Your task to perform on an android device: Open the calendar app, open the side menu, and click the "Day" option Image 0: 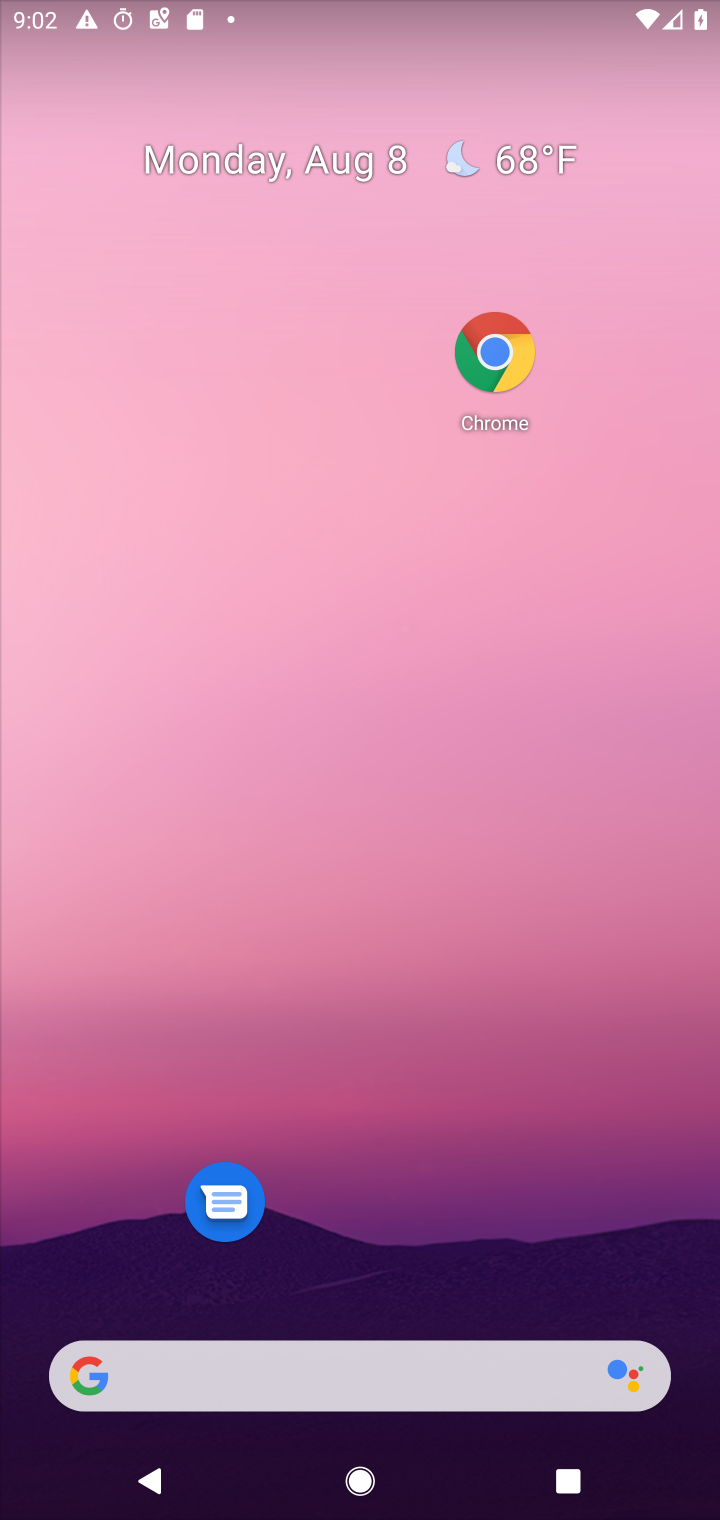
Step 0: drag from (482, 928) to (501, 519)
Your task to perform on an android device: Open the calendar app, open the side menu, and click the "Day" option Image 1: 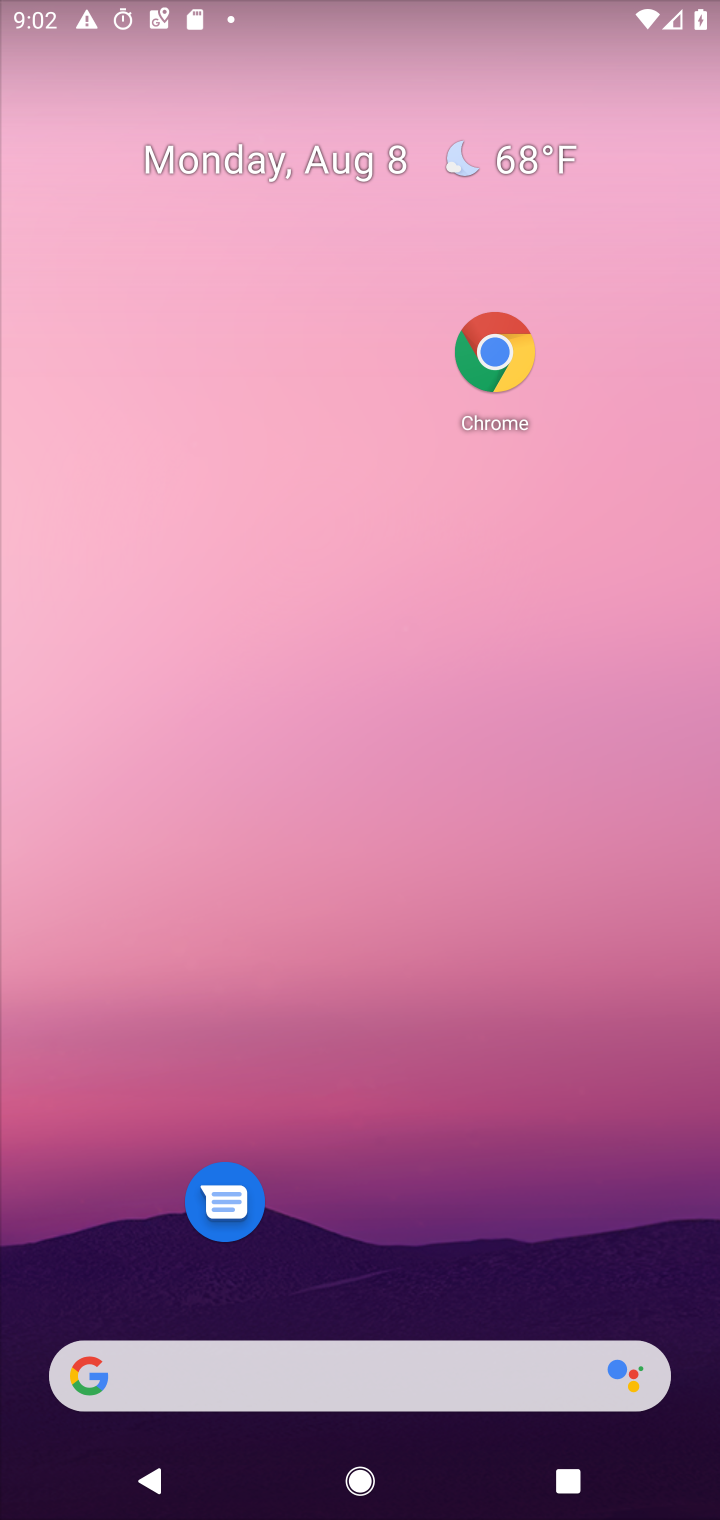
Step 1: drag from (464, 848) to (558, 238)
Your task to perform on an android device: Open the calendar app, open the side menu, and click the "Day" option Image 2: 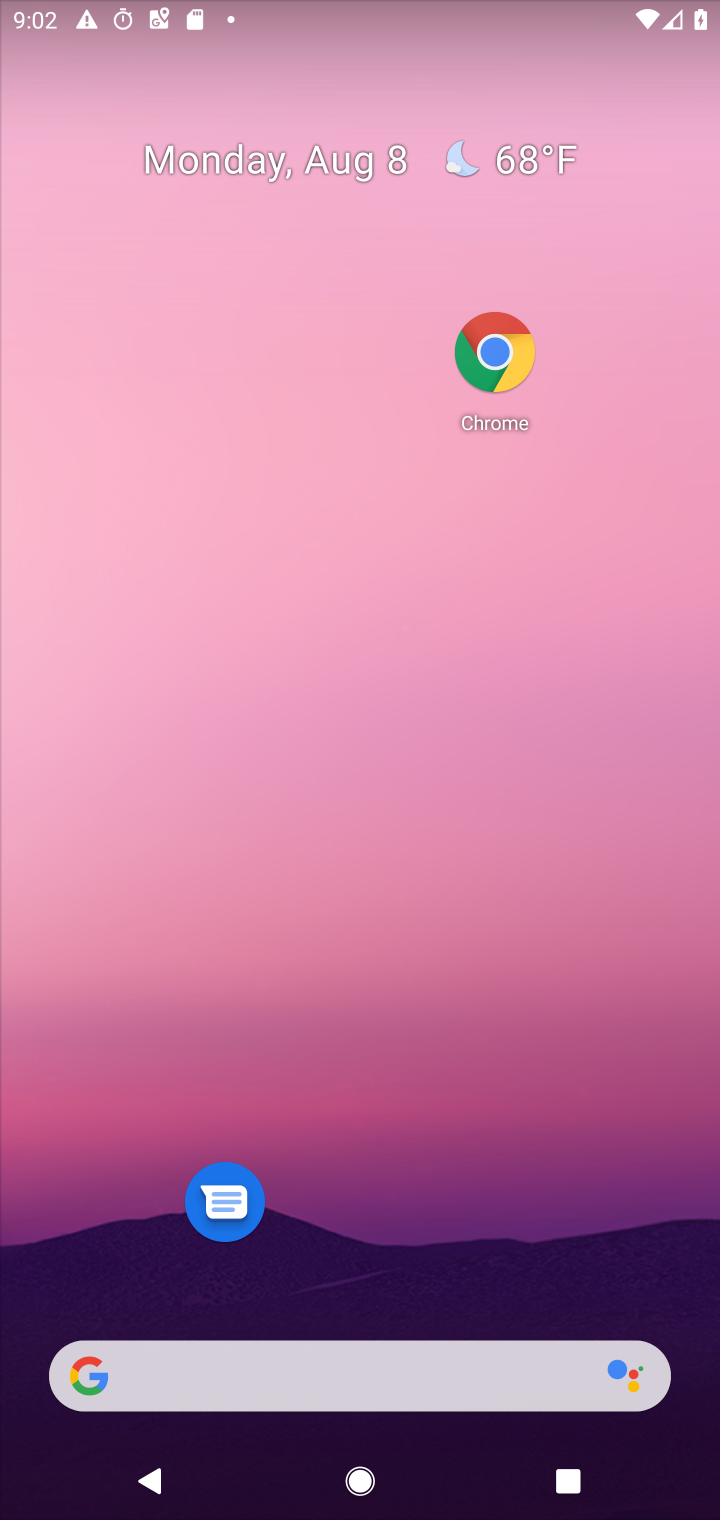
Step 2: drag from (356, 1188) to (439, 20)
Your task to perform on an android device: Open the calendar app, open the side menu, and click the "Day" option Image 3: 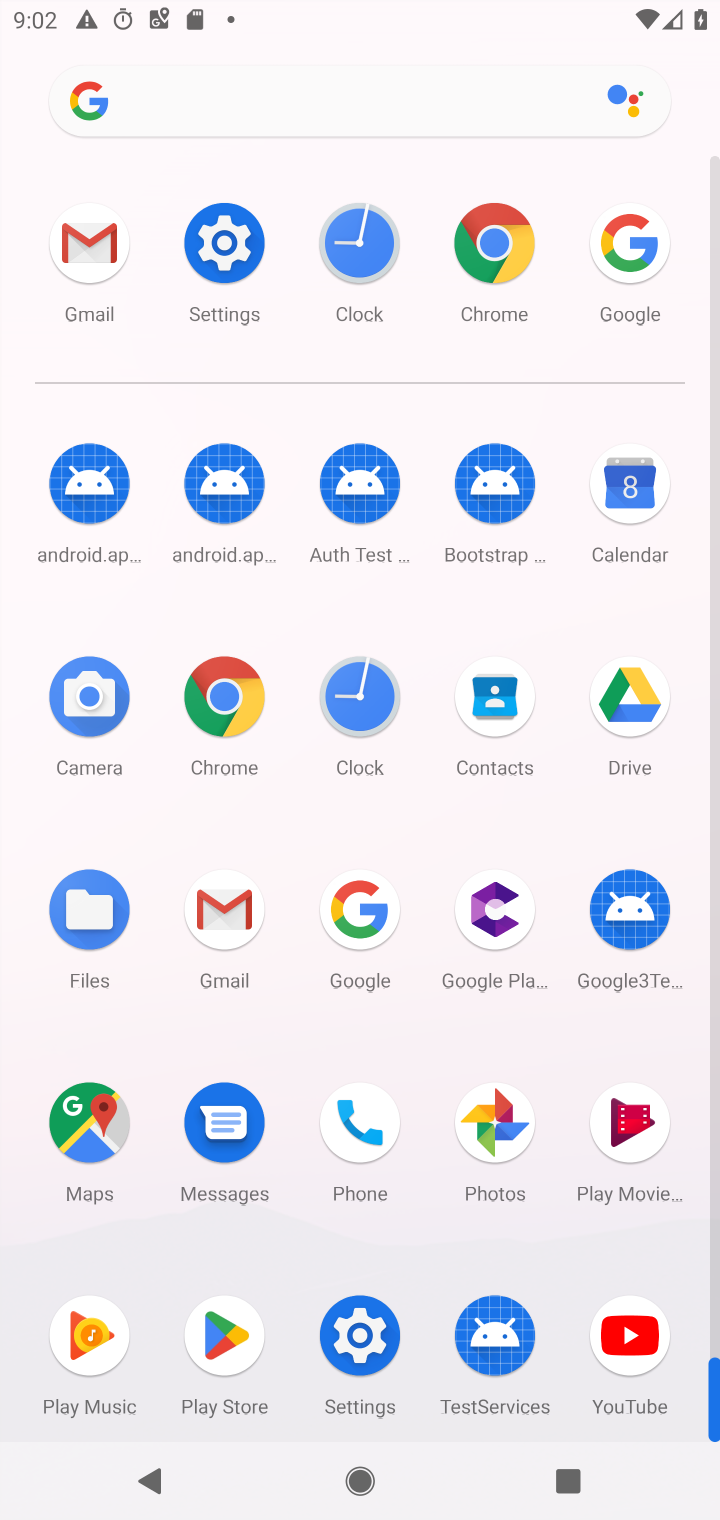
Step 3: click (599, 502)
Your task to perform on an android device: Open the calendar app, open the side menu, and click the "Day" option Image 4: 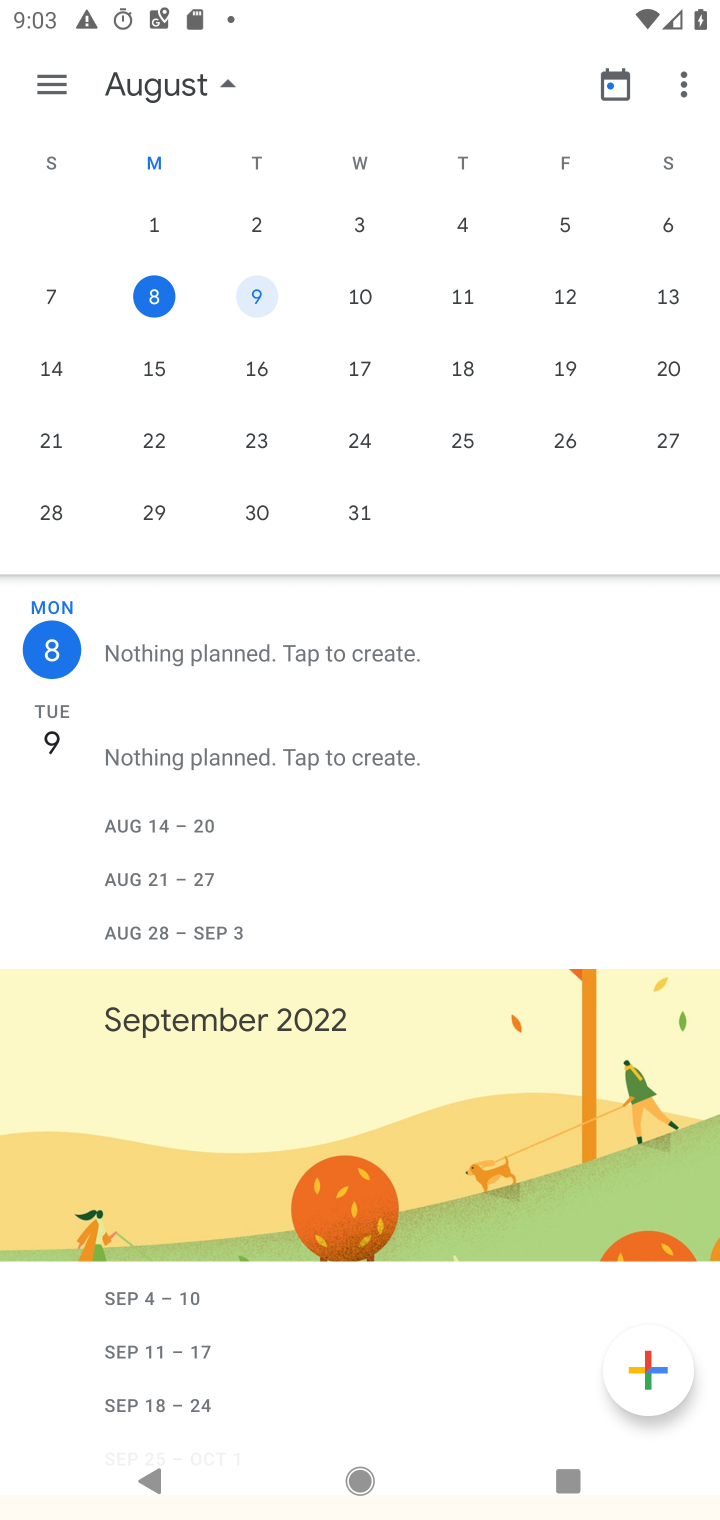
Step 4: click (52, 73)
Your task to perform on an android device: Open the calendar app, open the side menu, and click the "Day" option Image 5: 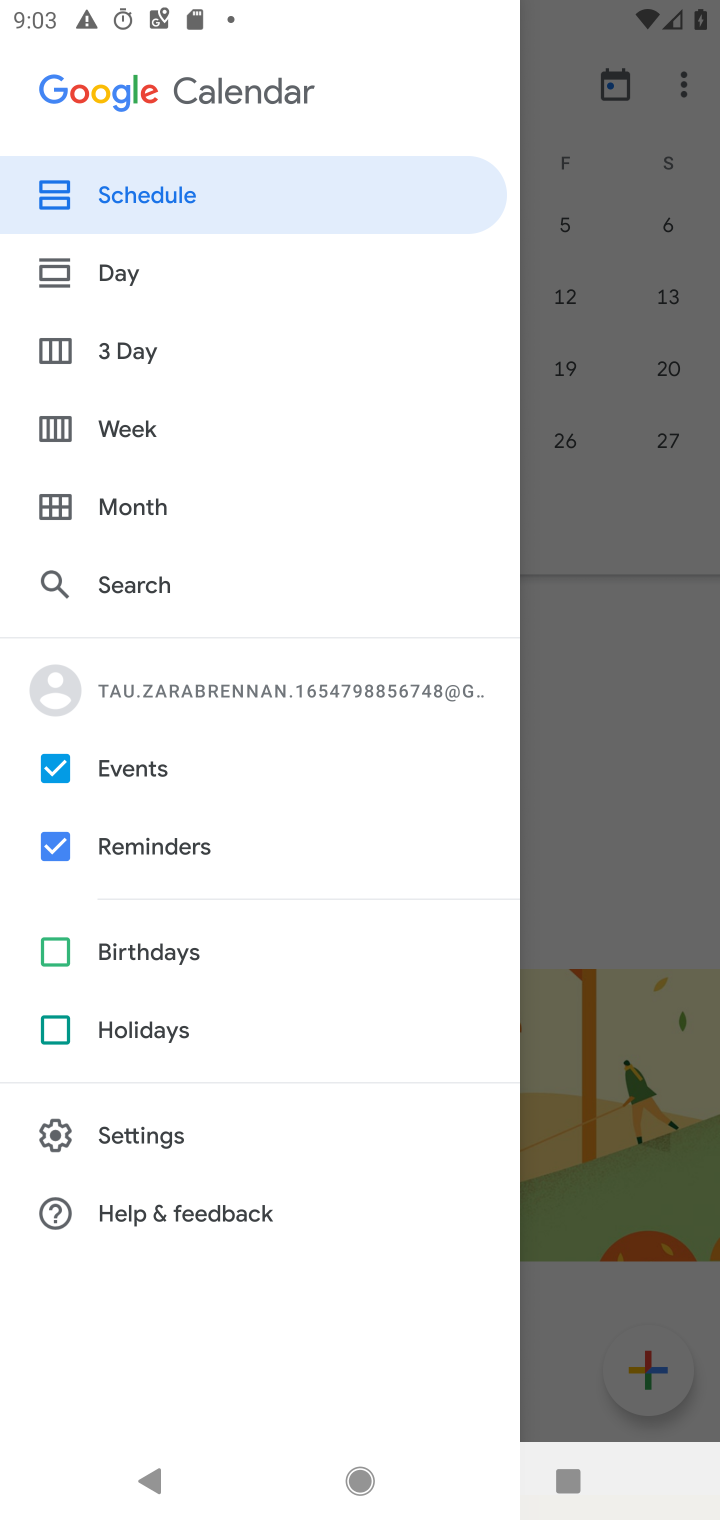
Step 5: click (128, 279)
Your task to perform on an android device: Open the calendar app, open the side menu, and click the "Day" option Image 6: 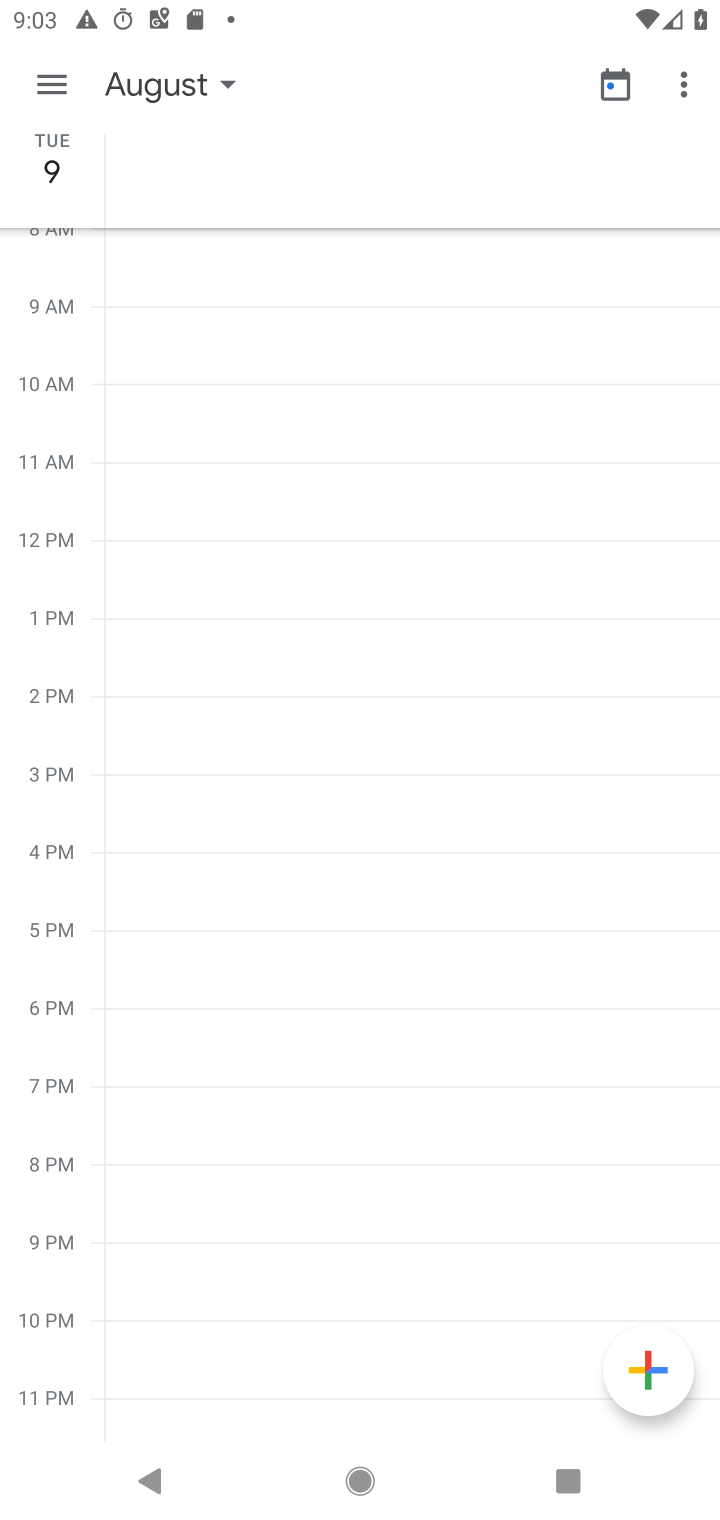
Step 6: task complete